Your task to perform on an android device: toggle show notifications on the lock screen Image 0: 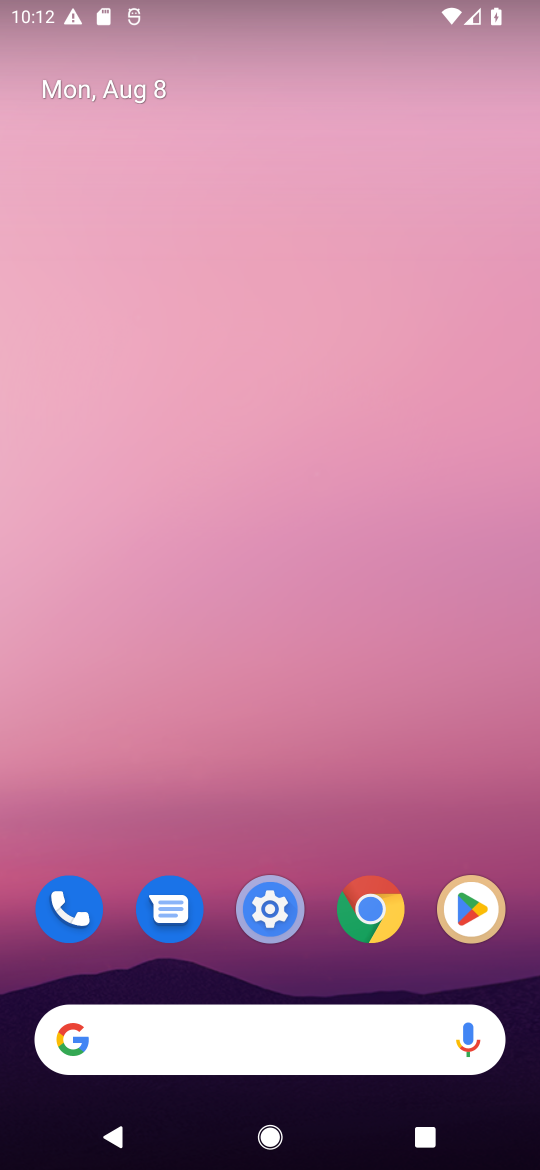
Step 0: click (263, 900)
Your task to perform on an android device: toggle show notifications on the lock screen Image 1: 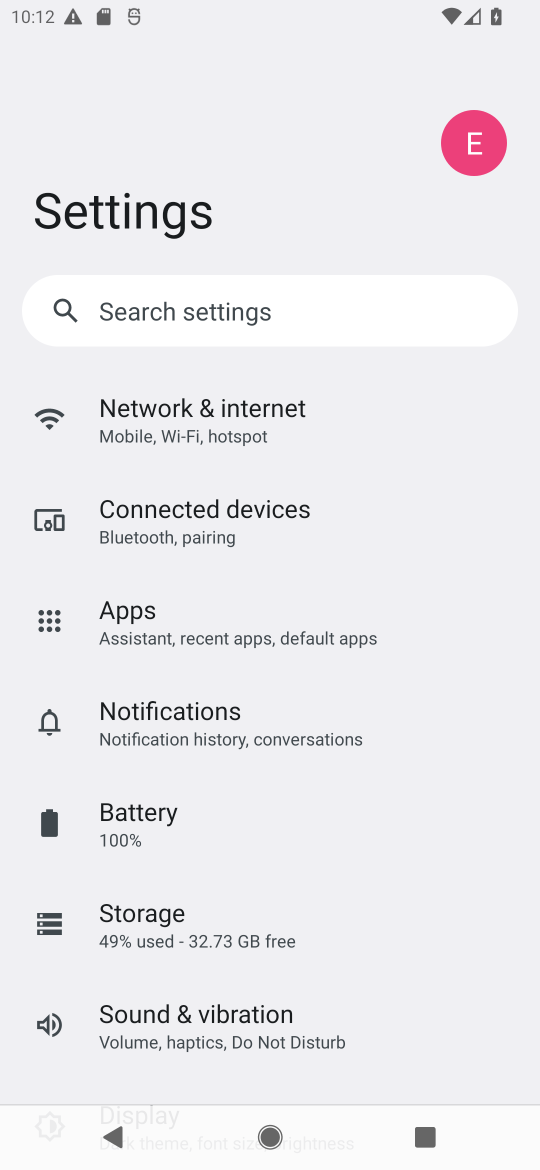
Step 1: click (213, 727)
Your task to perform on an android device: toggle show notifications on the lock screen Image 2: 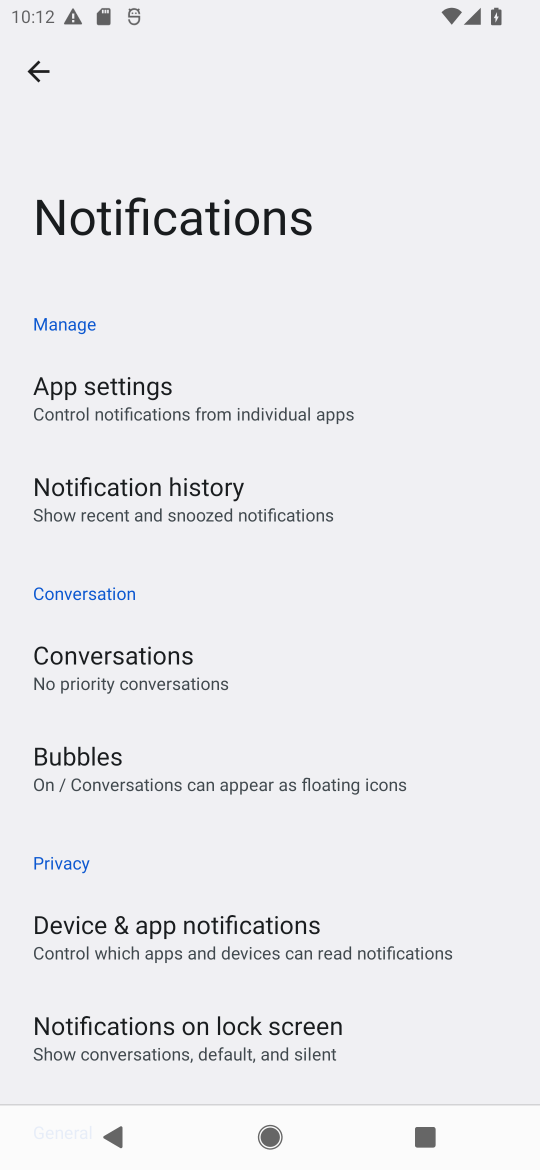
Step 2: click (239, 1040)
Your task to perform on an android device: toggle show notifications on the lock screen Image 3: 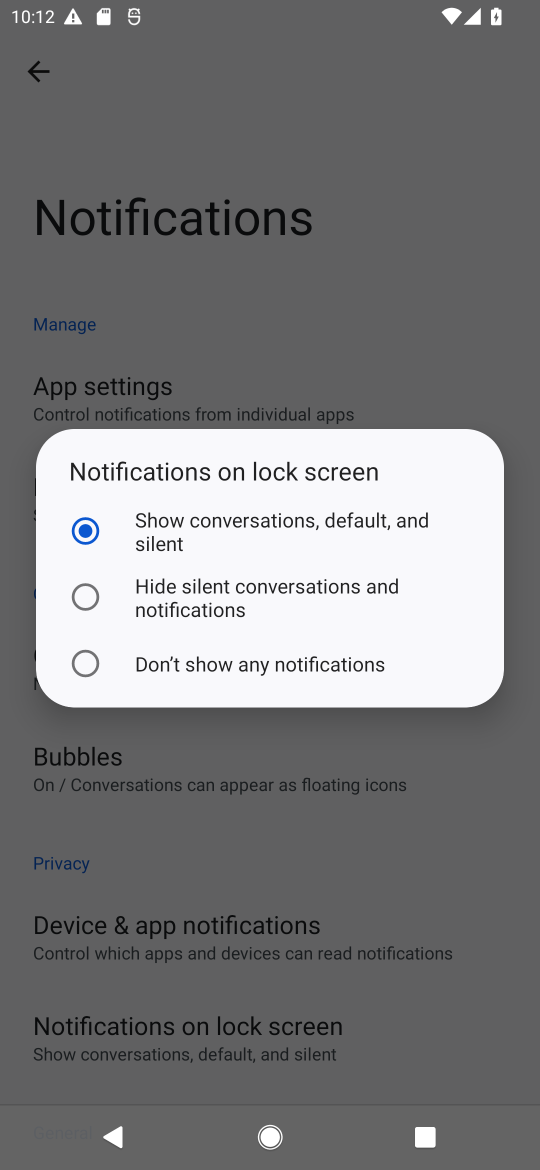
Step 3: click (97, 659)
Your task to perform on an android device: toggle show notifications on the lock screen Image 4: 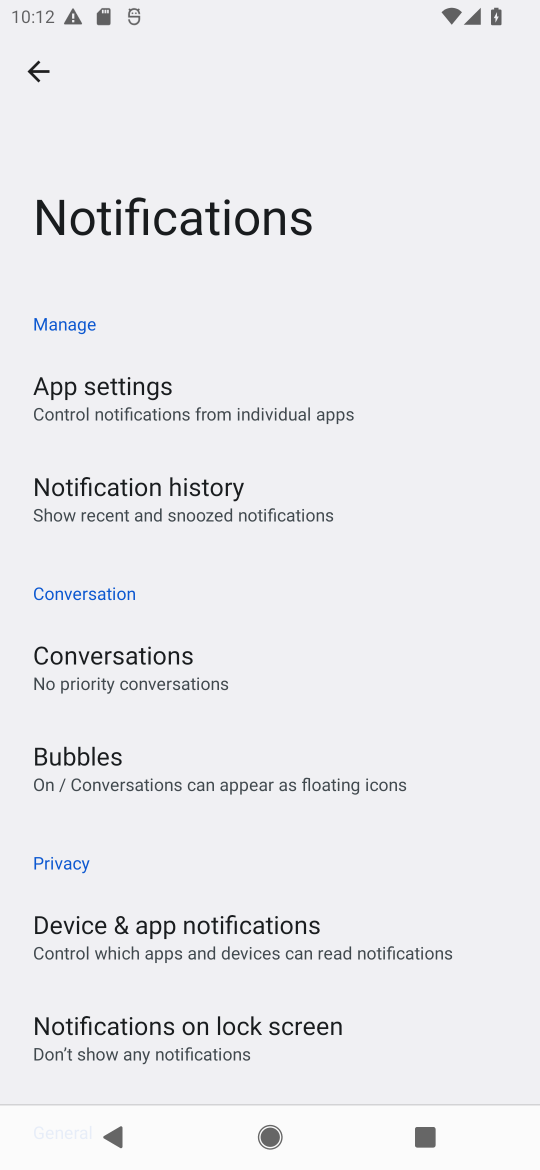
Step 4: task complete